Your task to perform on an android device: snooze an email in the gmail app Image 0: 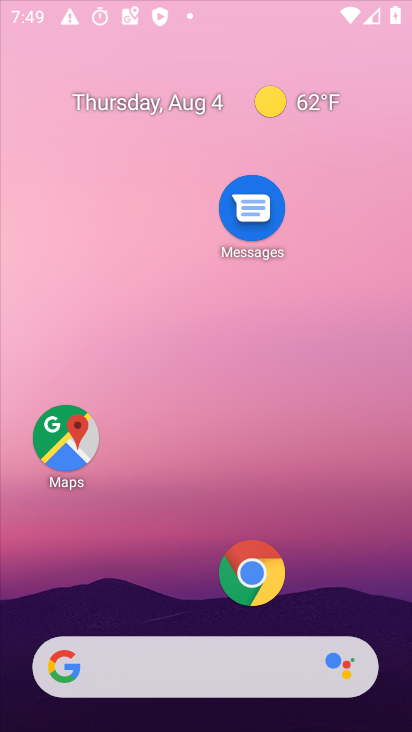
Step 0: press home button
Your task to perform on an android device: snooze an email in the gmail app Image 1: 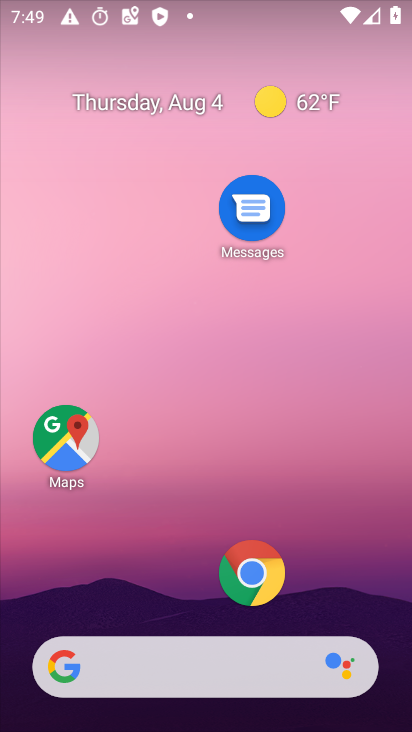
Step 1: drag from (140, 422) to (248, 20)
Your task to perform on an android device: snooze an email in the gmail app Image 2: 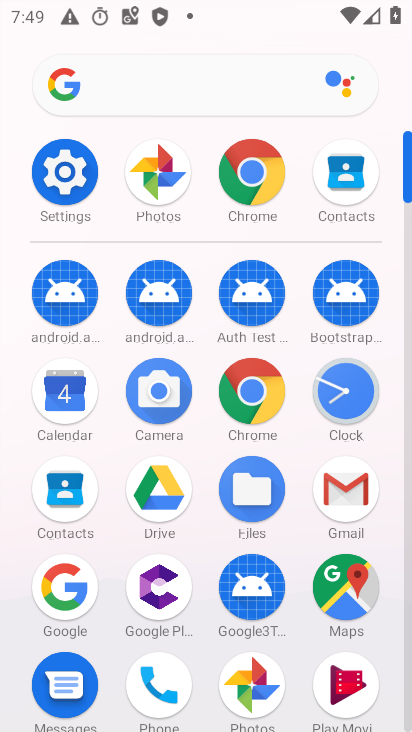
Step 2: click (341, 505)
Your task to perform on an android device: snooze an email in the gmail app Image 3: 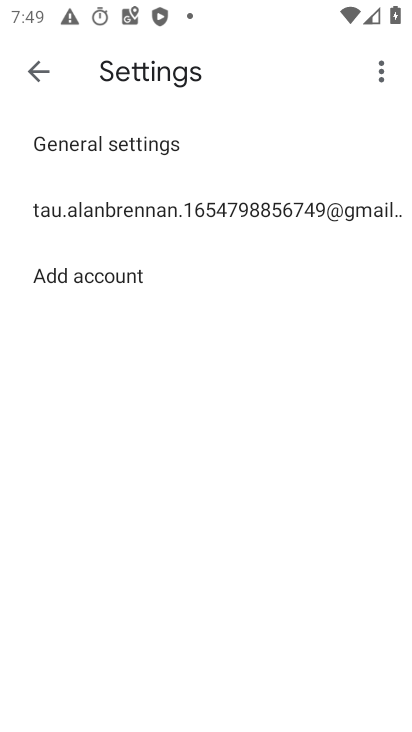
Step 3: click (32, 79)
Your task to perform on an android device: snooze an email in the gmail app Image 4: 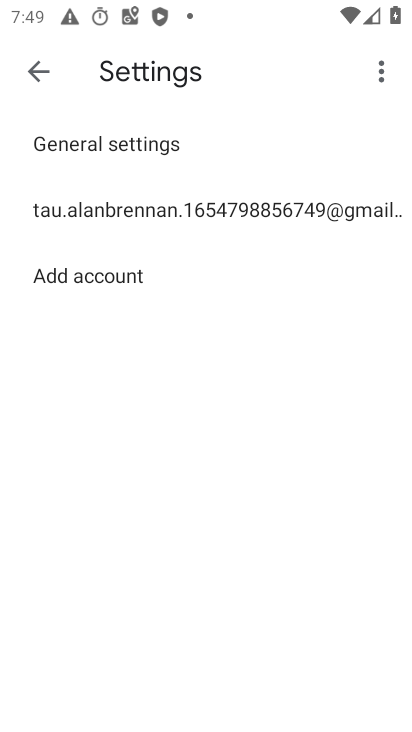
Step 4: click (37, 71)
Your task to perform on an android device: snooze an email in the gmail app Image 5: 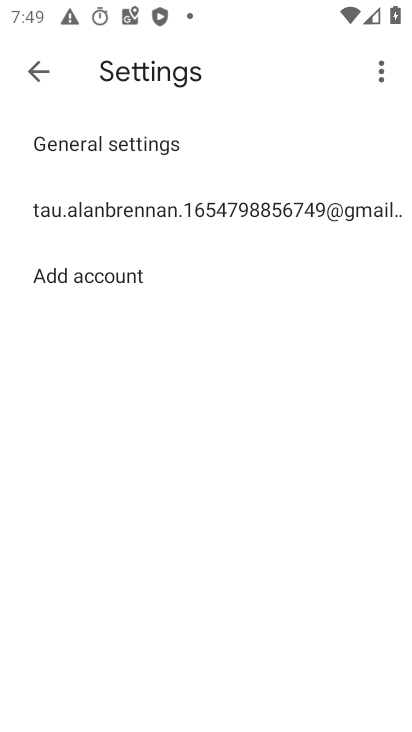
Step 5: click (37, 66)
Your task to perform on an android device: snooze an email in the gmail app Image 6: 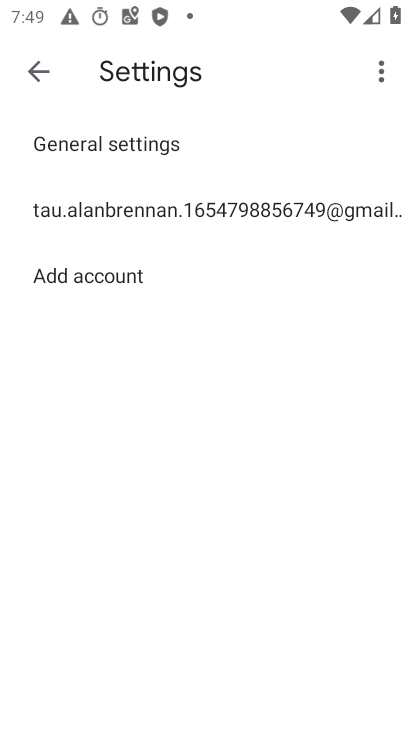
Step 6: click (30, 75)
Your task to perform on an android device: snooze an email in the gmail app Image 7: 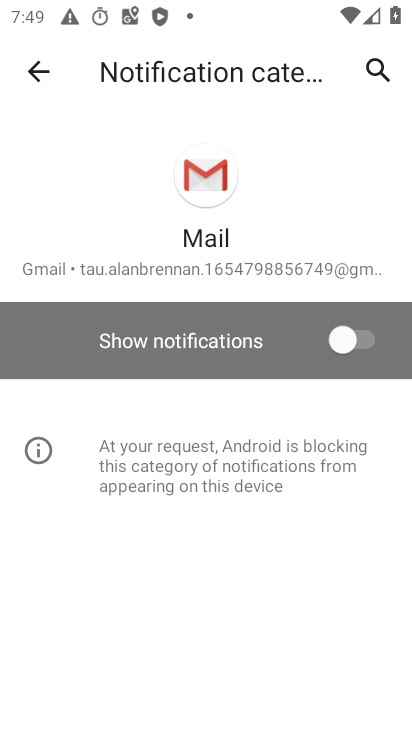
Step 7: click (38, 74)
Your task to perform on an android device: snooze an email in the gmail app Image 8: 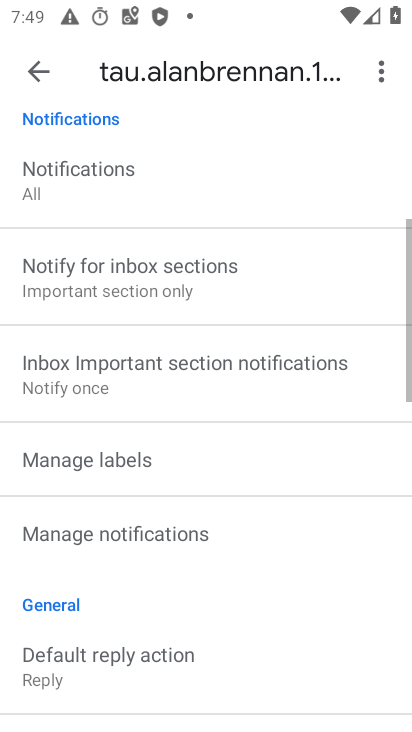
Step 8: click (41, 70)
Your task to perform on an android device: snooze an email in the gmail app Image 9: 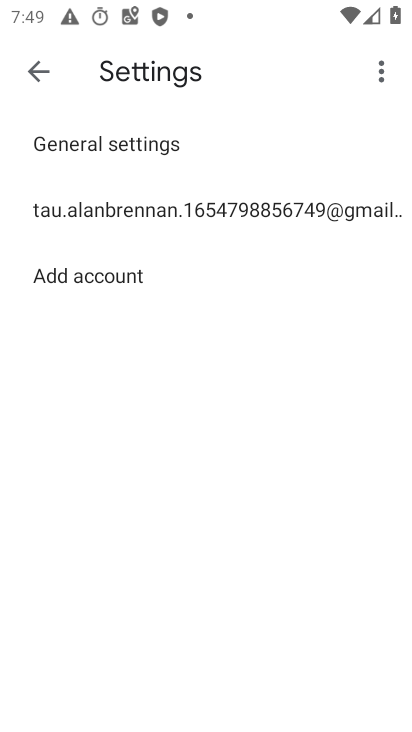
Step 9: click (33, 65)
Your task to perform on an android device: snooze an email in the gmail app Image 10: 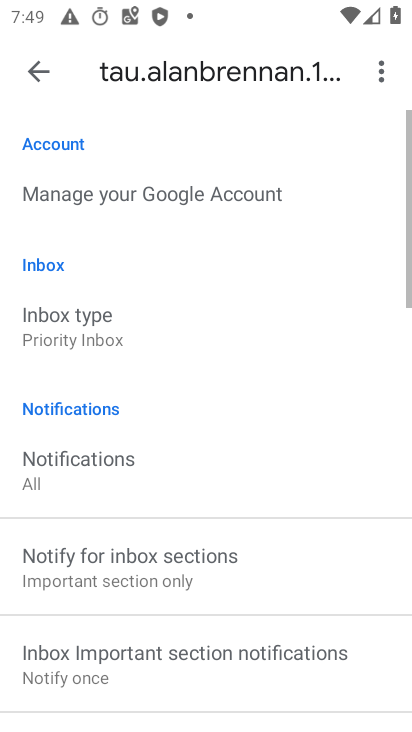
Step 10: click (43, 69)
Your task to perform on an android device: snooze an email in the gmail app Image 11: 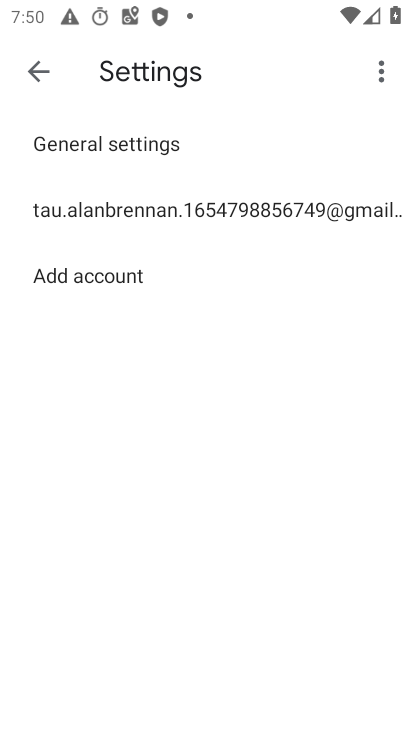
Step 11: click (38, 58)
Your task to perform on an android device: snooze an email in the gmail app Image 12: 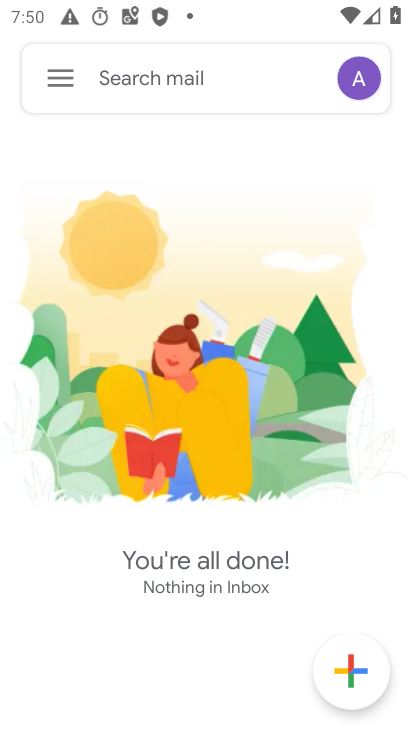
Step 12: click (46, 83)
Your task to perform on an android device: snooze an email in the gmail app Image 13: 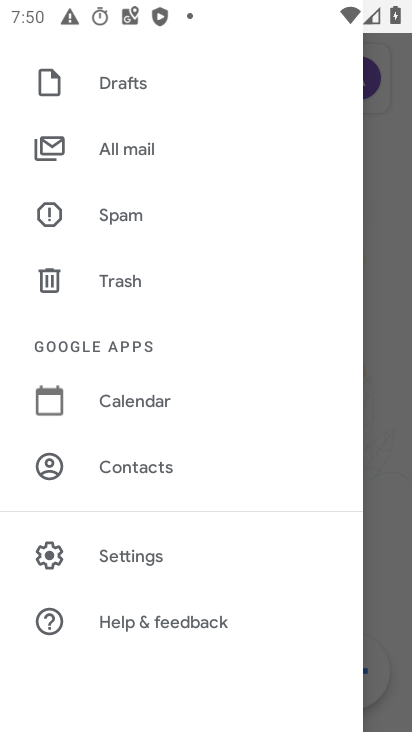
Step 13: click (120, 151)
Your task to perform on an android device: snooze an email in the gmail app Image 14: 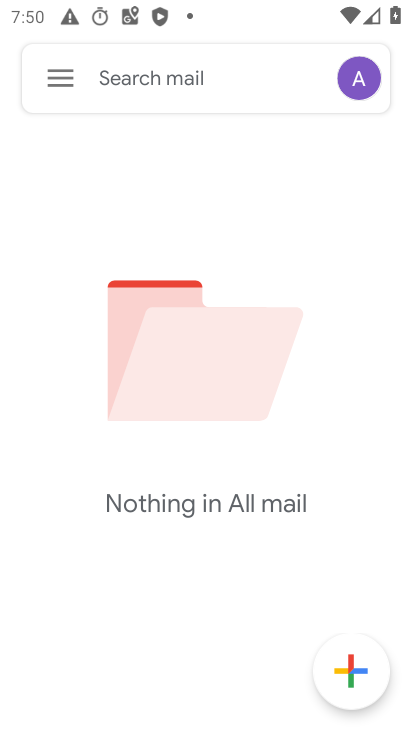
Step 14: task complete